Your task to perform on an android device: turn vacation reply on in the gmail app Image 0: 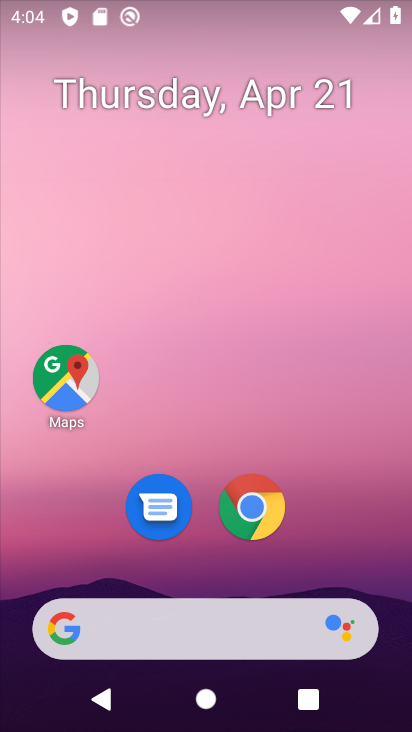
Step 0: drag from (365, 534) to (333, 134)
Your task to perform on an android device: turn vacation reply on in the gmail app Image 1: 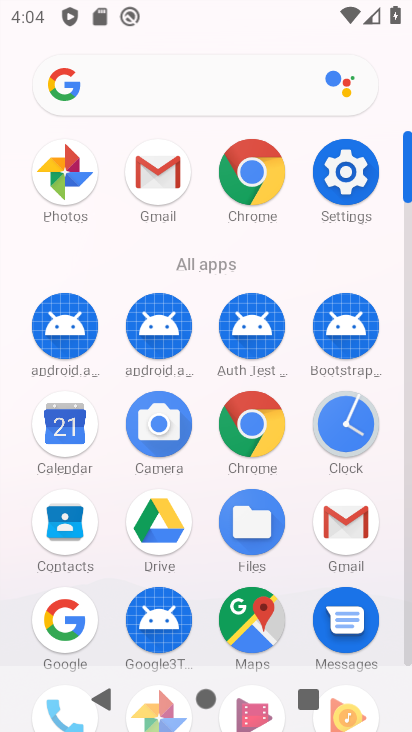
Step 1: click (342, 538)
Your task to perform on an android device: turn vacation reply on in the gmail app Image 2: 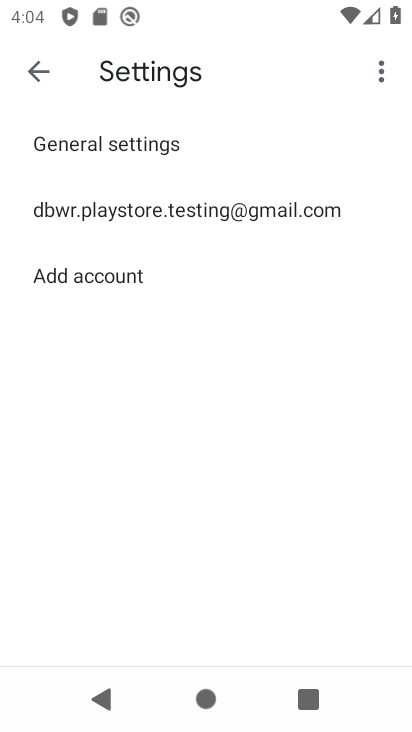
Step 2: click (308, 212)
Your task to perform on an android device: turn vacation reply on in the gmail app Image 3: 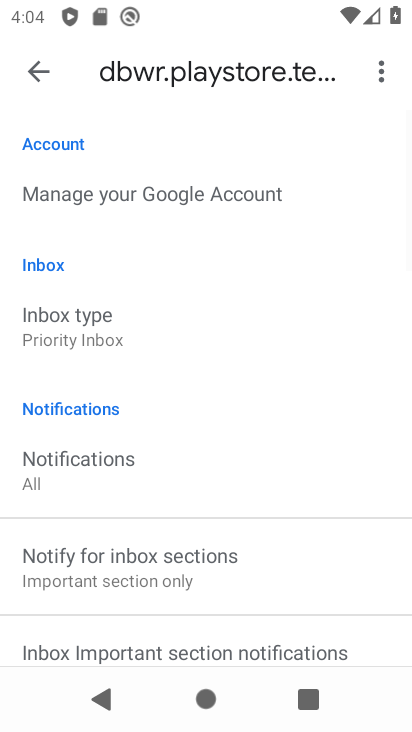
Step 3: drag from (289, 535) to (273, 133)
Your task to perform on an android device: turn vacation reply on in the gmail app Image 4: 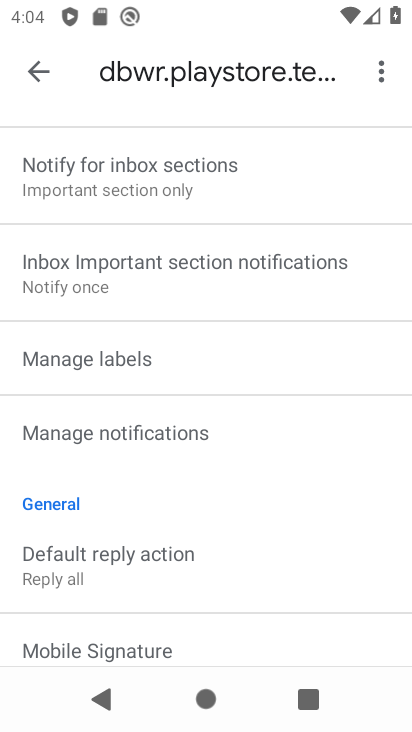
Step 4: drag from (308, 583) to (314, 204)
Your task to perform on an android device: turn vacation reply on in the gmail app Image 5: 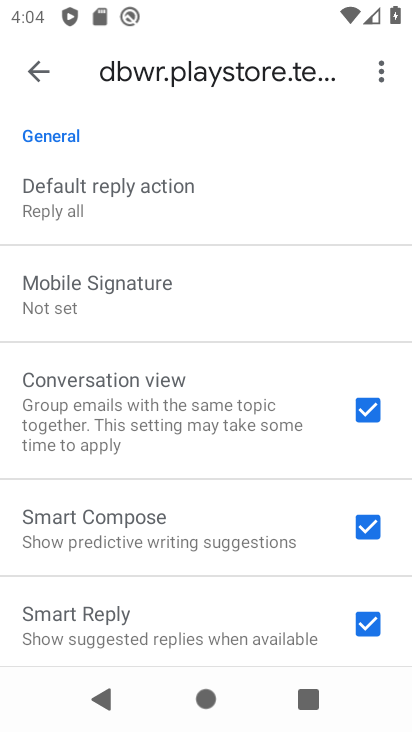
Step 5: drag from (241, 587) to (225, 171)
Your task to perform on an android device: turn vacation reply on in the gmail app Image 6: 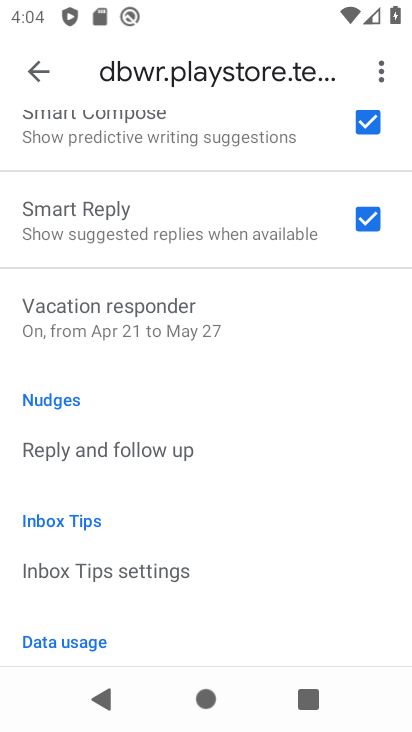
Step 6: click (256, 314)
Your task to perform on an android device: turn vacation reply on in the gmail app Image 7: 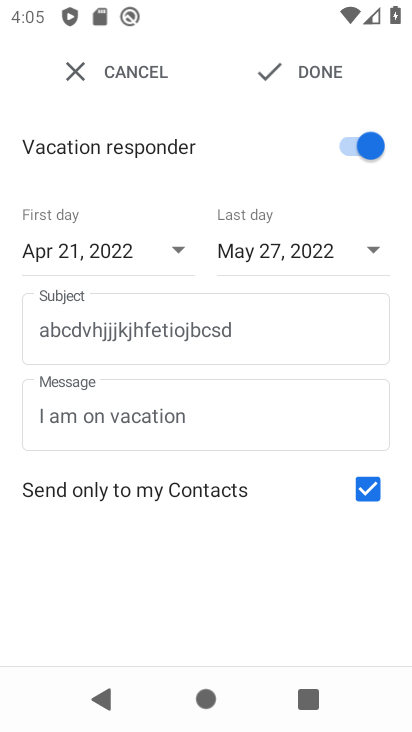
Step 7: click (273, 332)
Your task to perform on an android device: turn vacation reply on in the gmail app Image 8: 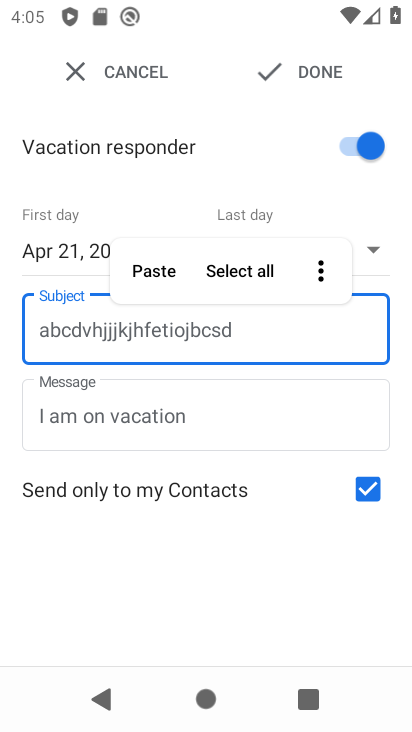
Step 8: type "huuh"
Your task to perform on an android device: turn vacation reply on in the gmail app Image 9: 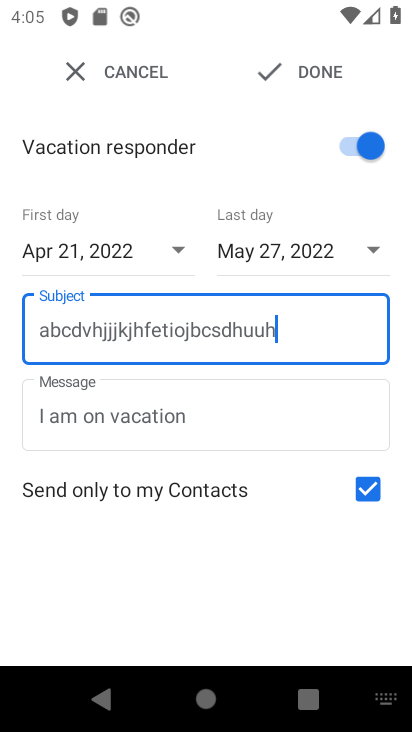
Step 9: click (325, 71)
Your task to perform on an android device: turn vacation reply on in the gmail app Image 10: 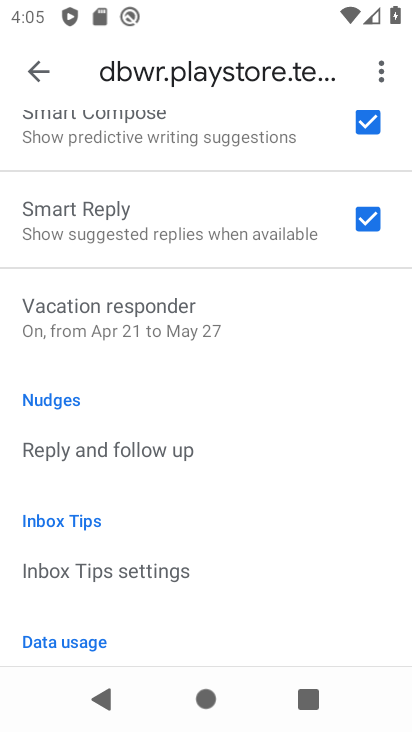
Step 10: task complete